Your task to perform on an android device: change alarm snooze length Image 0: 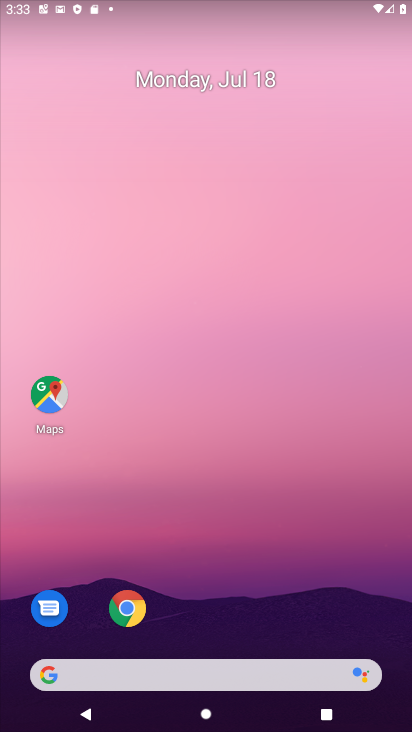
Step 0: drag from (231, 623) to (245, 160)
Your task to perform on an android device: change alarm snooze length Image 1: 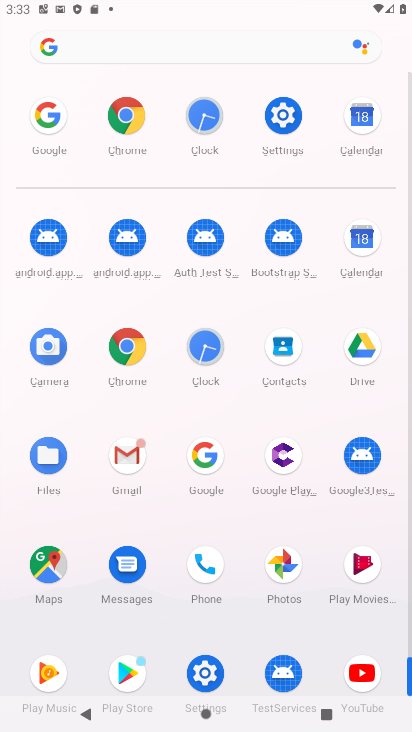
Step 1: click (209, 125)
Your task to perform on an android device: change alarm snooze length Image 2: 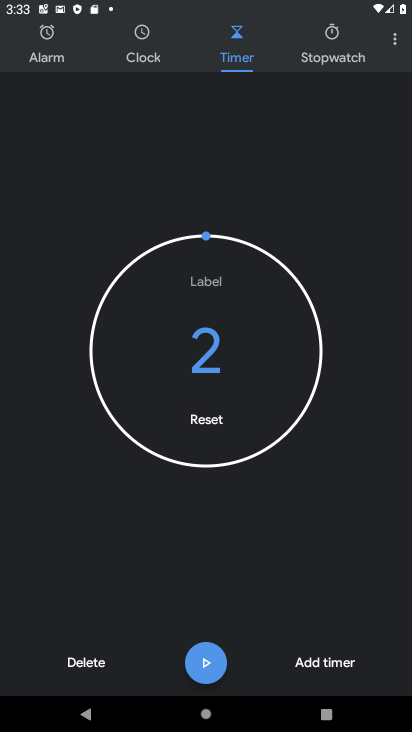
Step 2: click (397, 46)
Your task to perform on an android device: change alarm snooze length Image 3: 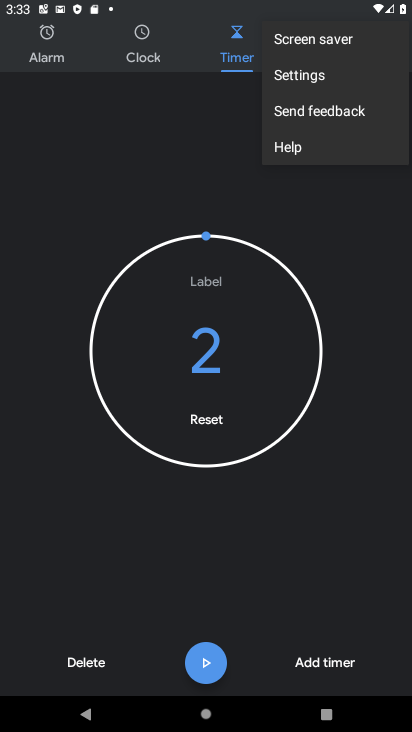
Step 3: click (325, 83)
Your task to perform on an android device: change alarm snooze length Image 4: 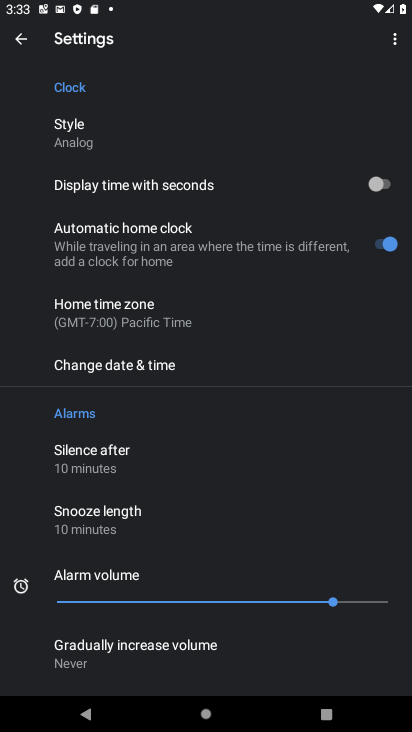
Step 4: click (121, 535)
Your task to perform on an android device: change alarm snooze length Image 5: 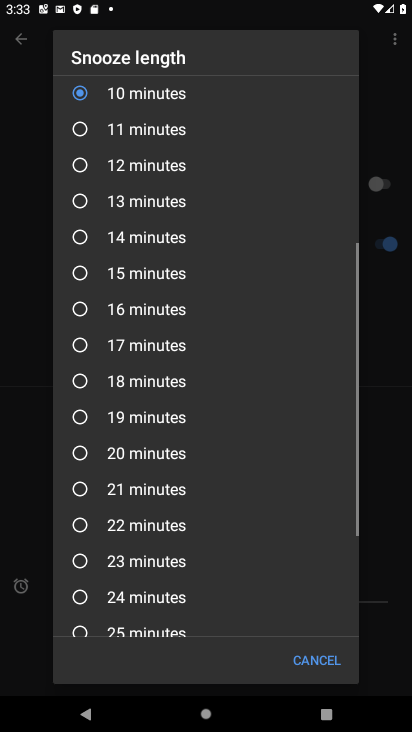
Step 5: click (100, 172)
Your task to perform on an android device: change alarm snooze length Image 6: 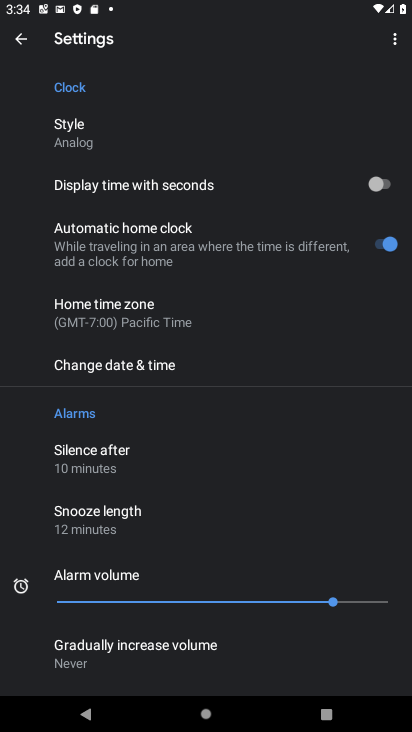
Step 6: task complete